Your task to perform on an android device: turn on bluetooth scan Image 0: 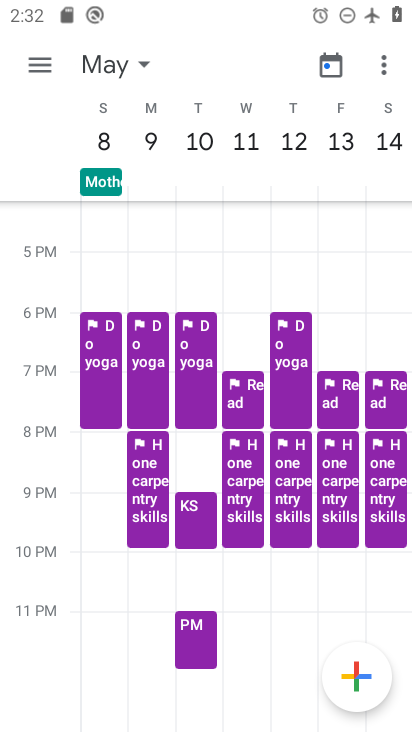
Step 0: press home button
Your task to perform on an android device: turn on bluetooth scan Image 1: 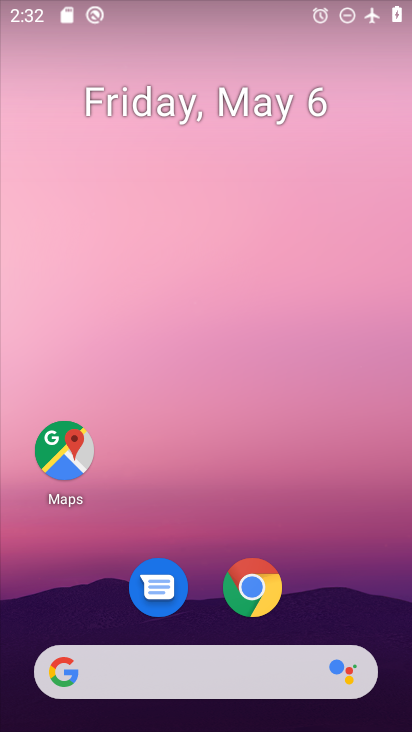
Step 1: drag from (241, 500) to (209, 79)
Your task to perform on an android device: turn on bluetooth scan Image 2: 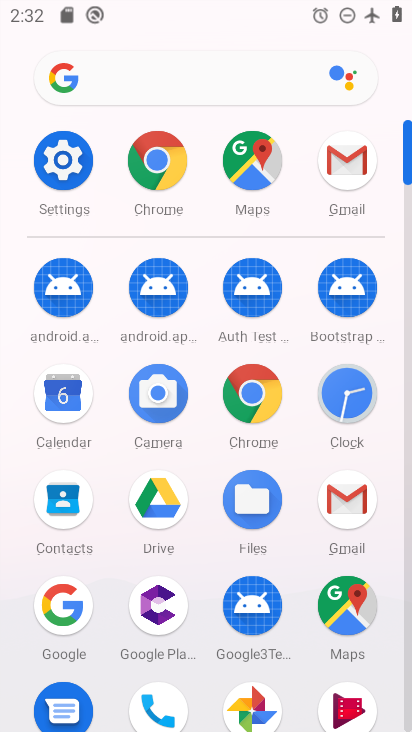
Step 2: click (72, 165)
Your task to perform on an android device: turn on bluetooth scan Image 3: 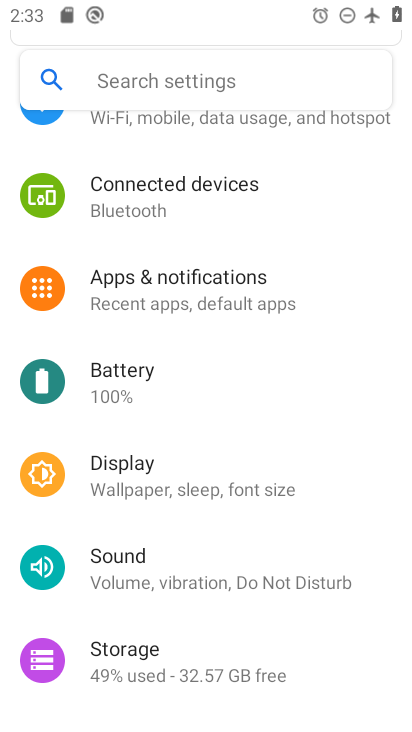
Step 3: drag from (223, 567) to (212, 244)
Your task to perform on an android device: turn on bluetooth scan Image 4: 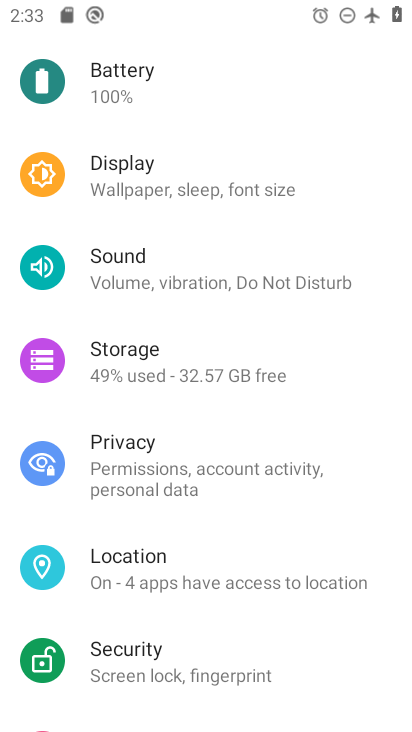
Step 4: click (197, 574)
Your task to perform on an android device: turn on bluetooth scan Image 5: 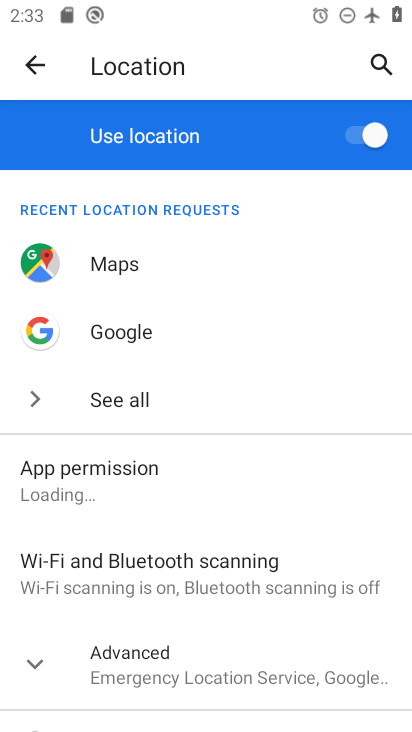
Step 5: click (254, 575)
Your task to perform on an android device: turn on bluetooth scan Image 6: 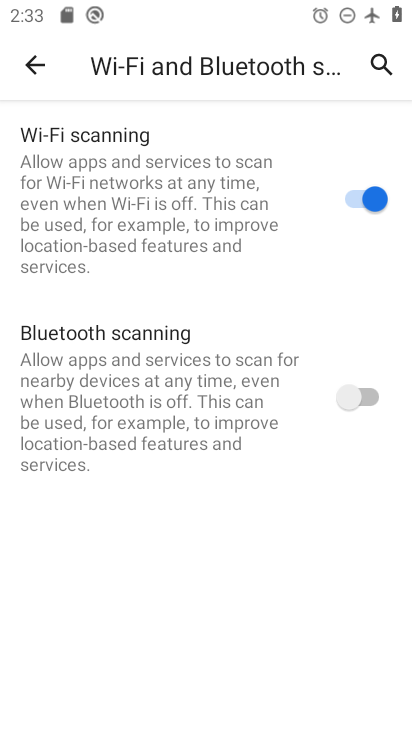
Step 6: click (363, 393)
Your task to perform on an android device: turn on bluetooth scan Image 7: 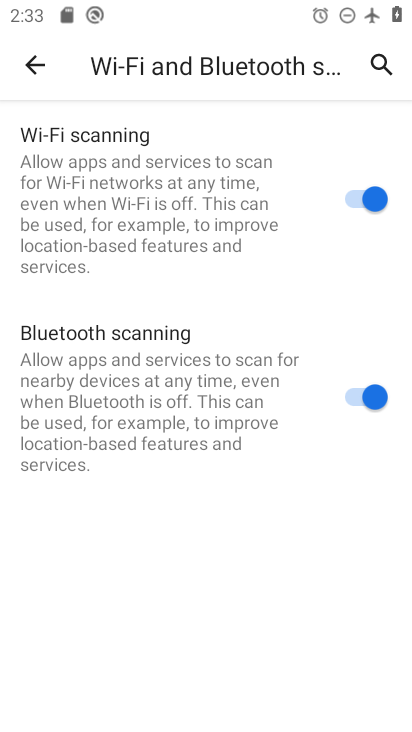
Step 7: task complete